Your task to perform on an android device: see tabs open on other devices in the chrome app Image 0: 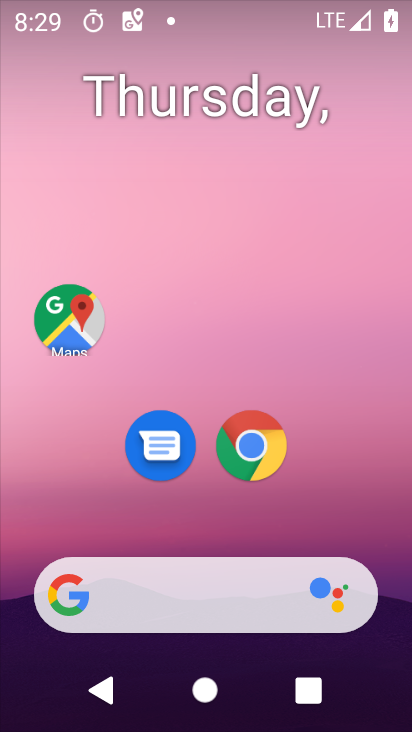
Step 0: click (235, 307)
Your task to perform on an android device: see tabs open on other devices in the chrome app Image 1: 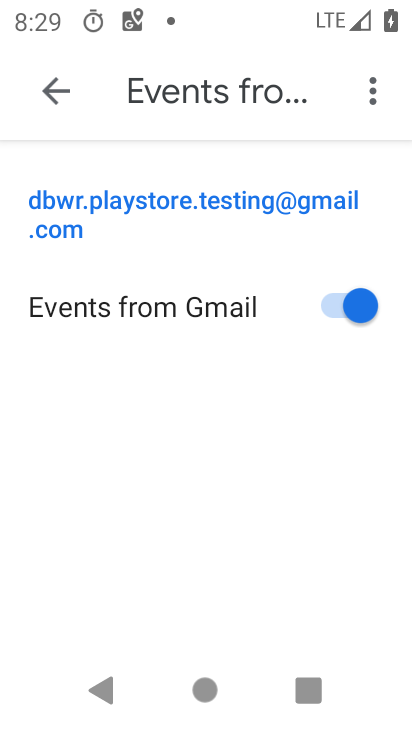
Step 1: drag from (217, 499) to (244, 205)
Your task to perform on an android device: see tabs open on other devices in the chrome app Image 2: 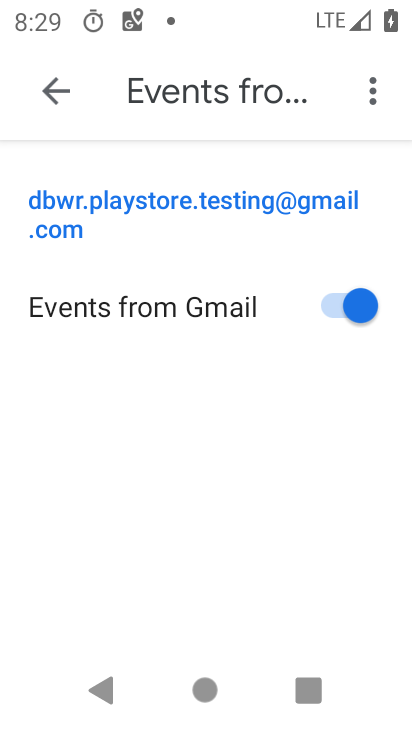
Step 2: drag from (234, 492) to (219, 55)
Your task to perform on an android device: see tabs open on other devices in the chrome app Image 3: 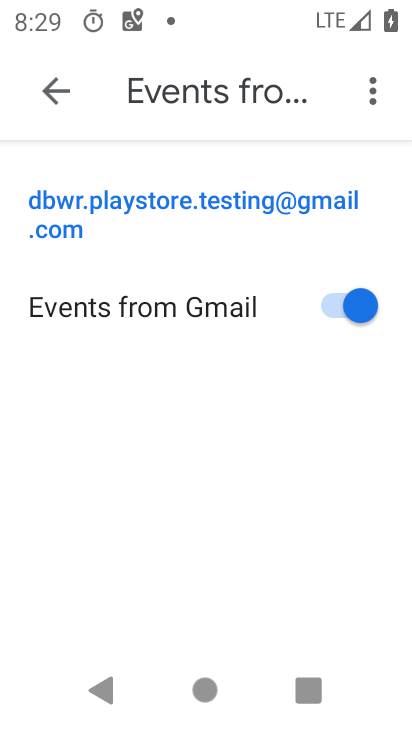
Step 3: drag from (165, 511) to (197, 351)
Your task to perform on an android device: see tabs open on other devices in the chrome app Image 4: 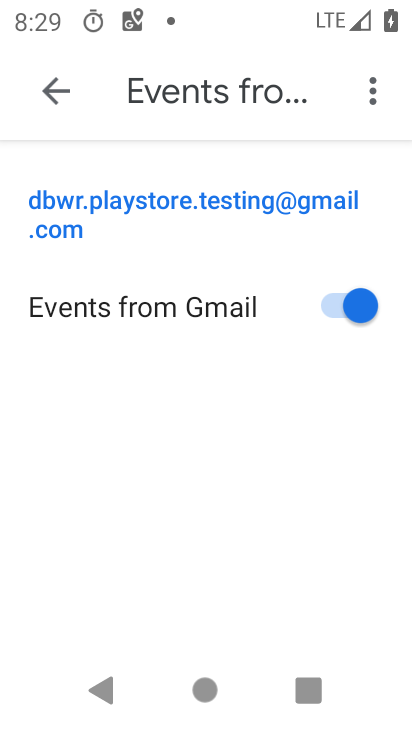
Step 4: drag from (166, 205) to (283, 528)
Your task to perform on an android device: see tabs open on other devices in the chrome app Image 5: 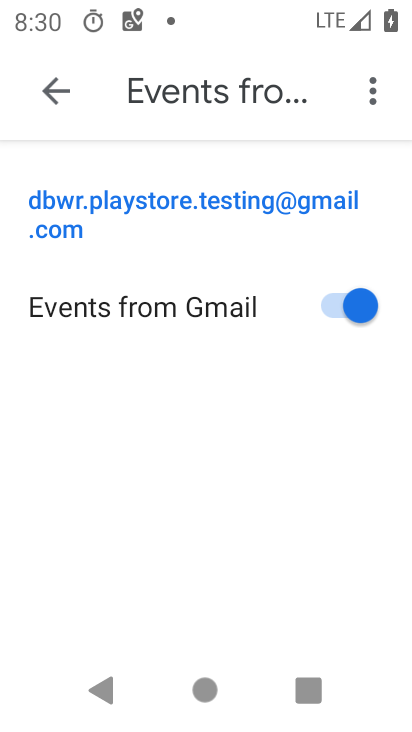
Step 5: click (170, 448)
Your task to perform on an android device: see tabs open on other devices in the chrome app Image 6: 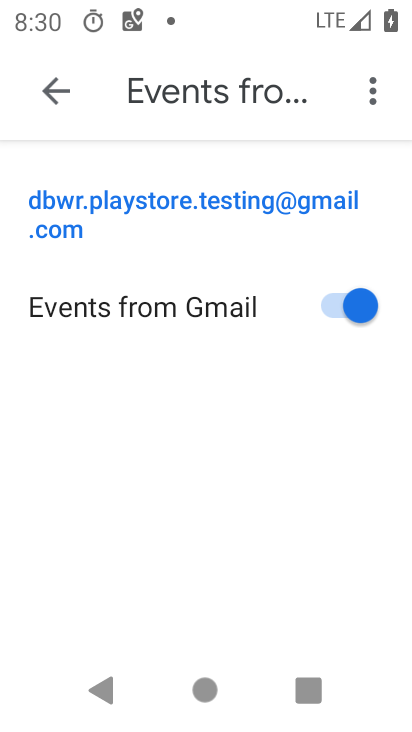
Step 6: click (170, 446)
Your task to perform on an android device: see tabs open on other devices in the chrome app Image 7: 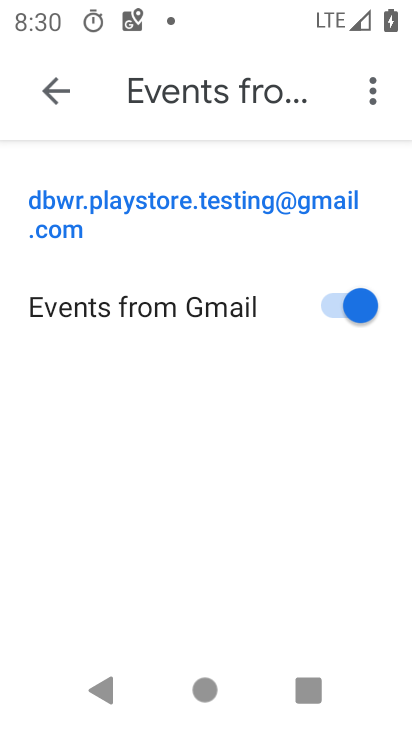
Step 7: click (185, 208)
Your task to perform on an android device: see tabs open on other devices in the chrome app Image 8: 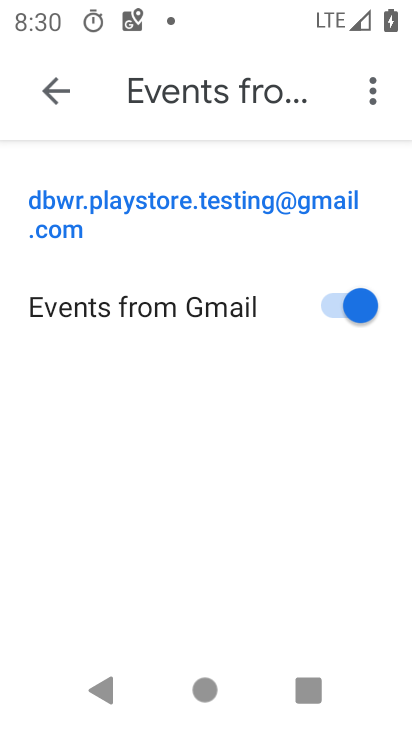
Step 8: click (185, 208)
Your task to perform on an android device: see tabs open on other devices in the chrome app Image 9: 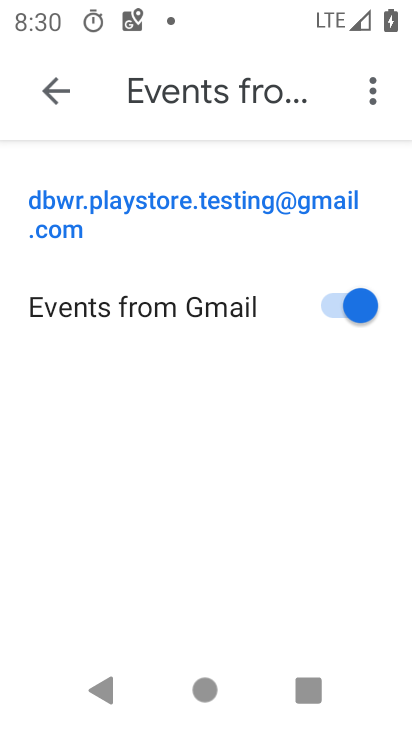
Step 9: drag from (202, 498) to (242, 224)
Your task to perform on an android device: see tabs open on other devices in the chrome app Image 10: 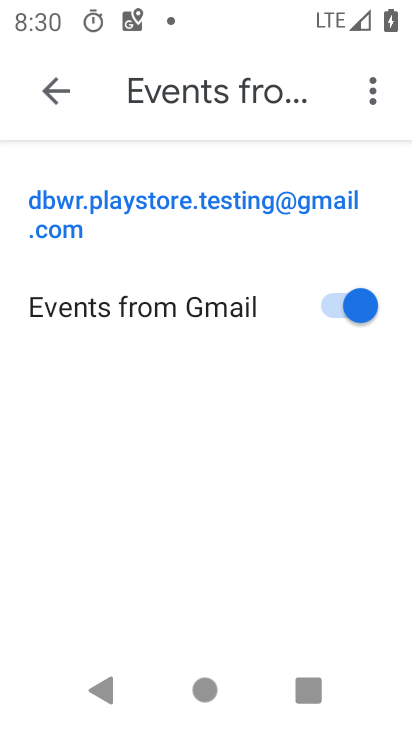
Step 10: click (203, 203)
Your task to perform on an android device: see tabs open on other devices in the chrome app Image 11: 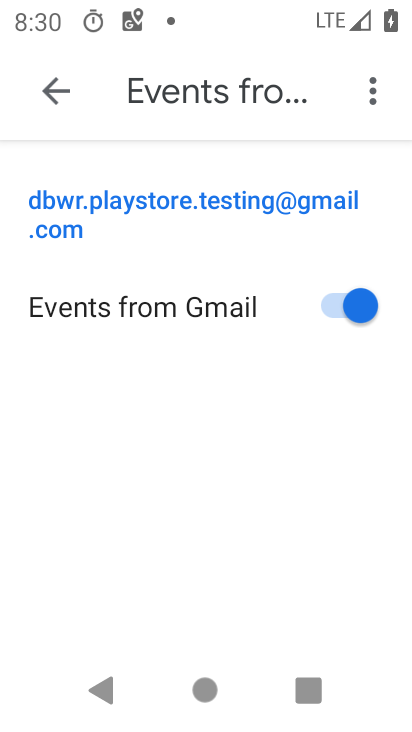
Step 11: click (198, 216)
Your task to perform on an android device: see tabs open on other devices in the chrome app Image 12: 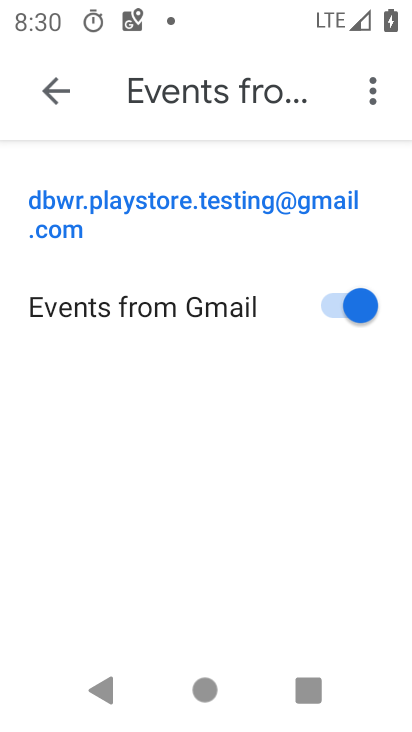
Step 12: drag from (281, 458) to (266, 375)
Your task to perform on an android device: see tabs open on other devices in the chrome app Image 13: 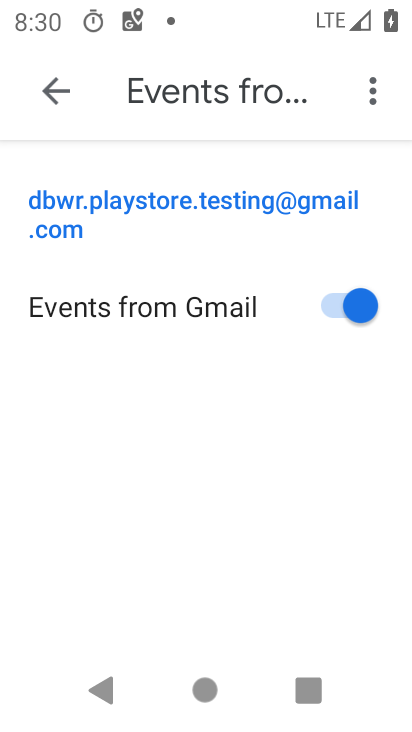
Step 13: click (65, 80)
Your task to perform on an android device: see tabs open on other devices in the chrome app Image 14: 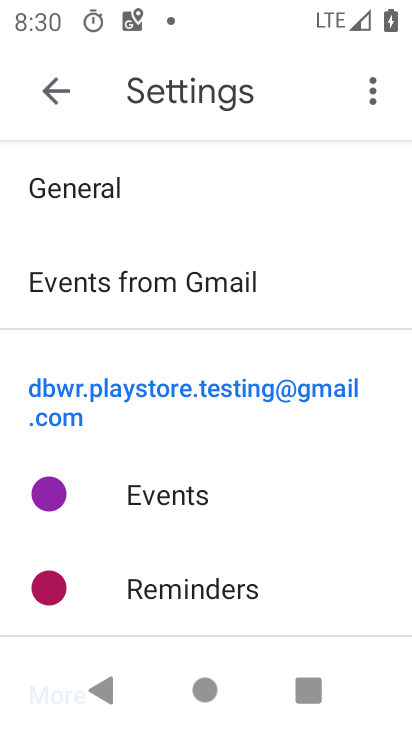
Step 14: click (54, 114)
Your task to perform on an android device: see tabs open on other devices in the chrome app Image 15: 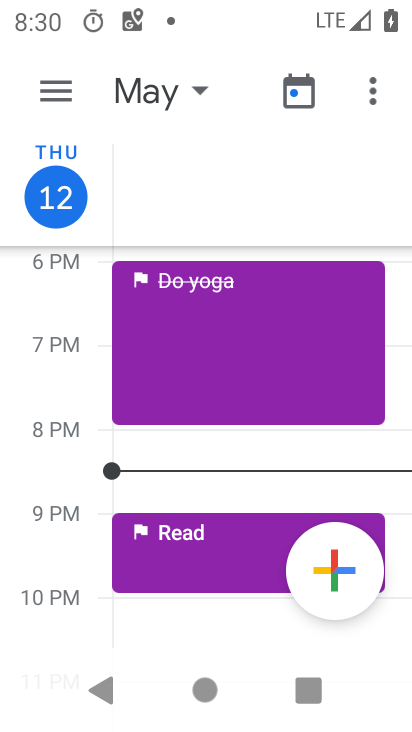
Step 15: drag from (197, 494) to (233, 214)
Your task to perform on an android device: see tabs open on other devices in the chrome app Image 16: 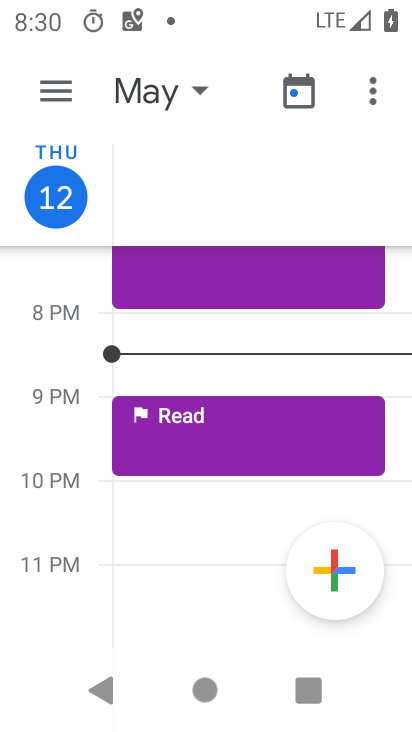
Step 16: drag from (238, 345) to (275, 637)
Your task to perform on an android device: see tabs open on other devices in the chrome app Image 17: 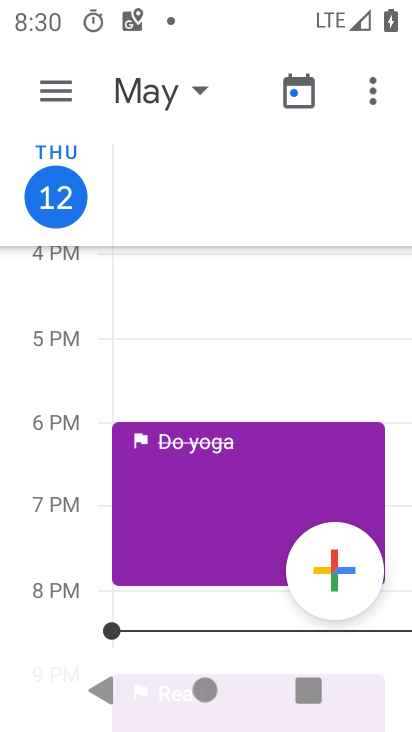
Step 17: press home button
Your task to perform on an android device: see tabs open on other devices in the chrome app Image 18: 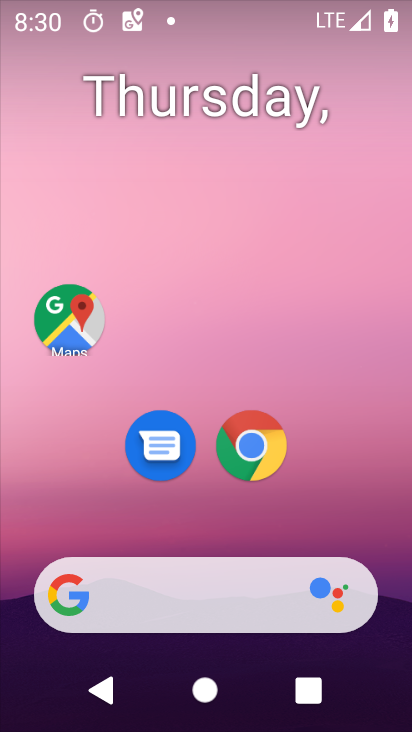
Step 18: click (243, 449)
Your task to perform on an android device: see tabs open on other devices in the chrome app Image 19: 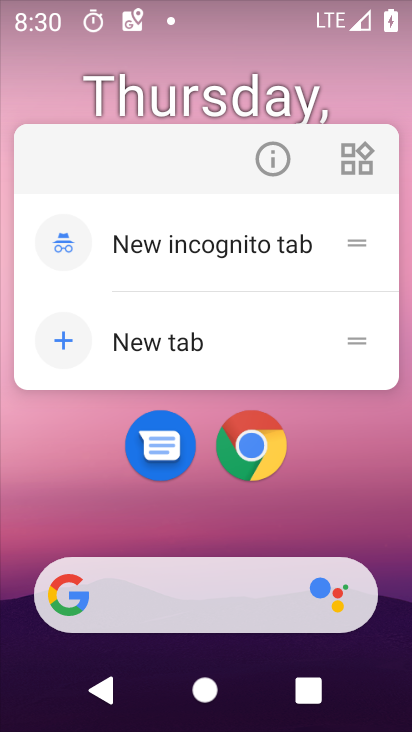
Step 19: click (258, 154)
Your task to perform on an android device: see tabs open on other devices in the chrome app Image 20: 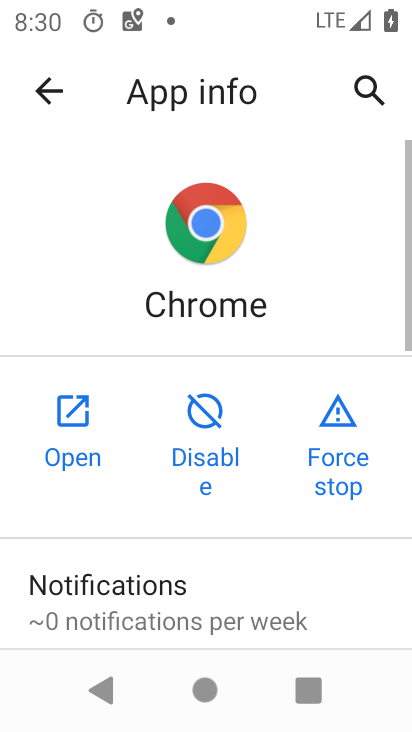
Step 20: click (65, 421)
Your task to perform on an android device: see tabs open on other devices in the chrome app Image 21: 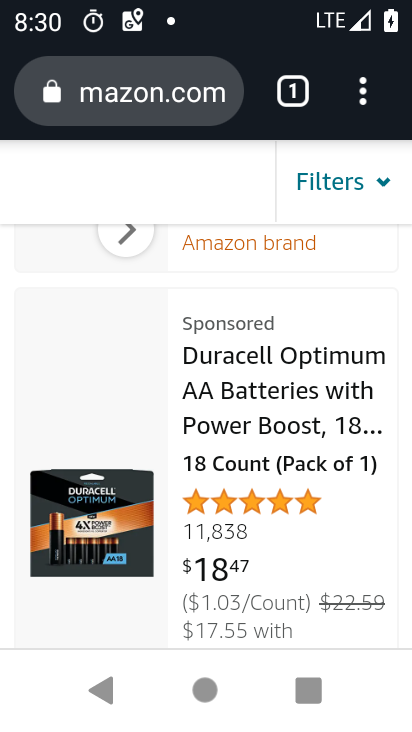
Step 21: drag from (281, 459) to (276, 279)
Your task to perform on an android device: see tabs open on other devices in the chrome app Image 22: 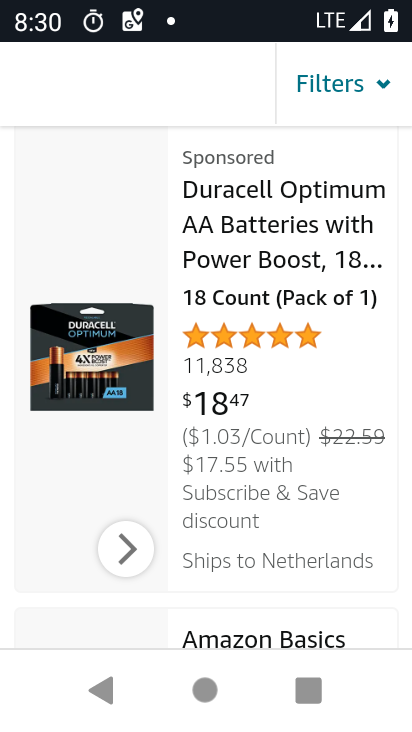
Step 22: drag from (301, 315) to (356, 588)
Your task to perform on an android device: see tabs open on other devices in the chrome app Image 23: 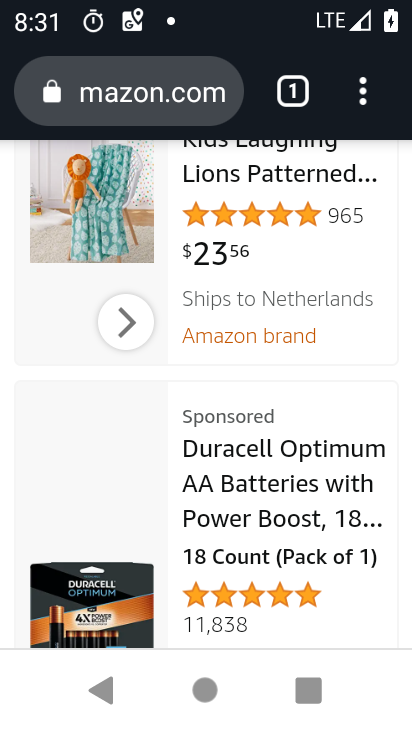
Step 23: click (360, 92)
Your task to perform on an android device: see tabs open on other devices in the chrome app Image 24: 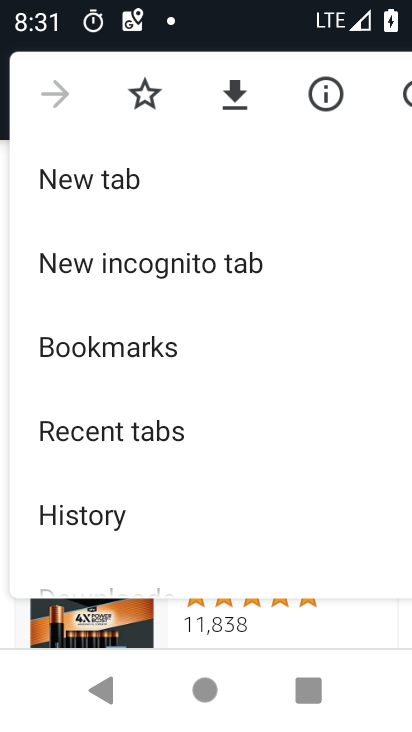
Step 24: drag from (168, 389) to (217, 147)
Your task to perform on an android device: see tabs open on other devices in the chrome app Image 25: 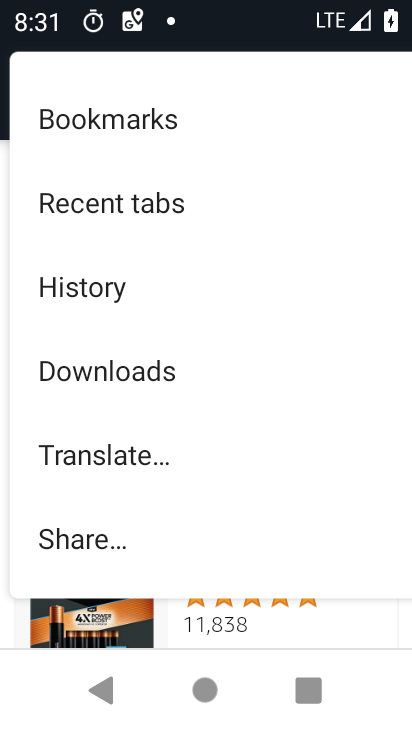
Step 25: click (189, 206)
Your task to perform on an android device: see tabs open on other devices in the chrome app Image 26: 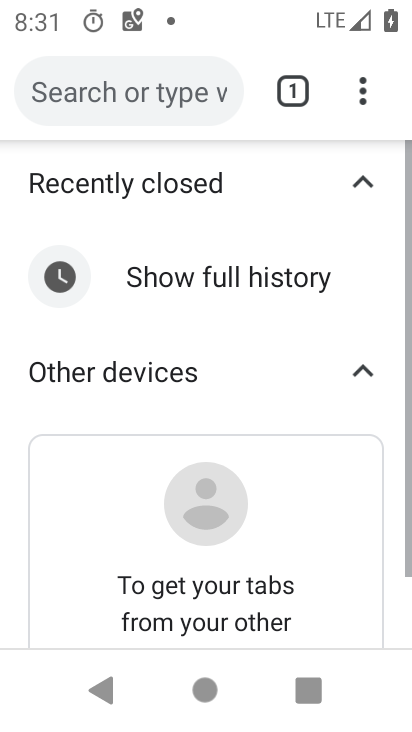
Step 26: task complete